Your task to perform on an android device: toggle data saver in the chrome app Image 0: 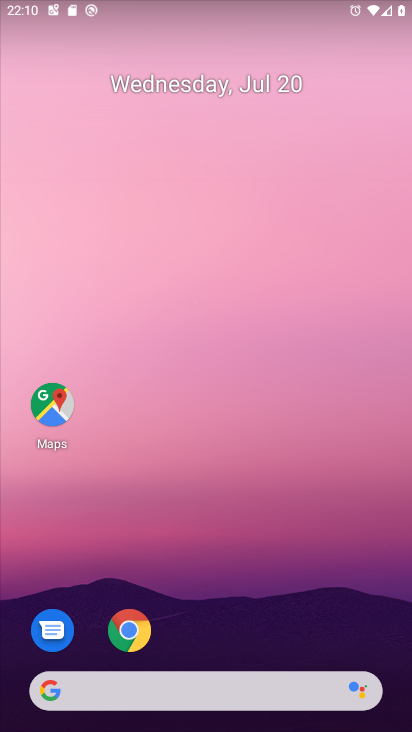
Step 0: click (133, 633)
Your task to perform on an android device: toggle data saver in the chrome app Image 1: 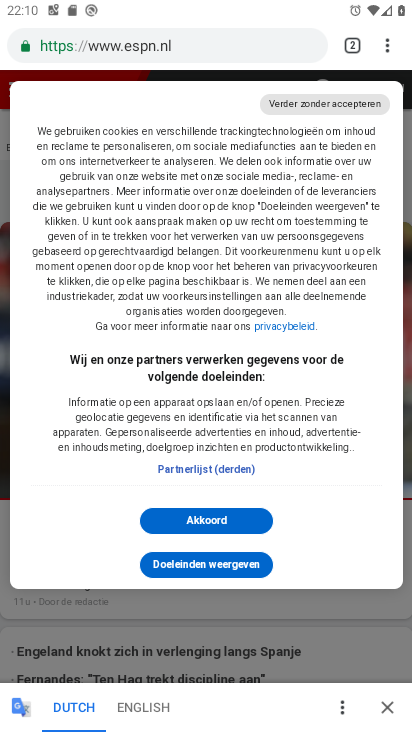
Step 1: drag from (386, 48) to (237, 550)
Your task to perform on an android device: toggle data saver in the chrome app Image 2: 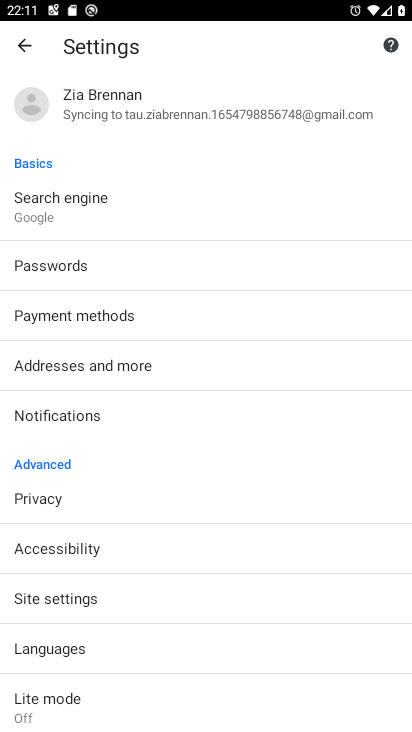
Step 2: click (59, 698)
Your task to perform on an android device: toggle data saver in the chrome app Image 3: 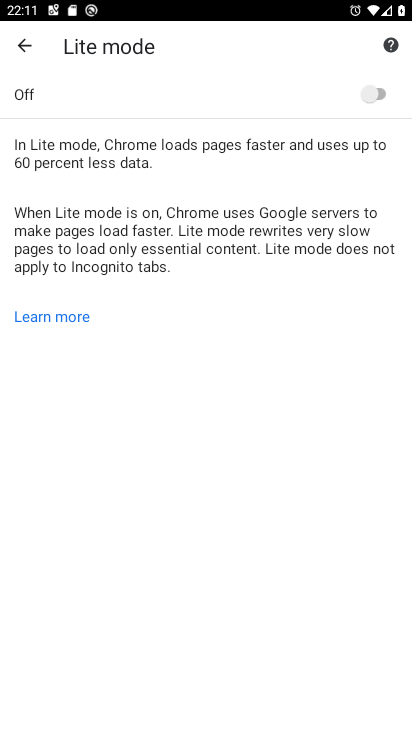
Step 3: click (373, 86)
Your task to perform on an android device: toggle data saver in the chrome app Image 4: 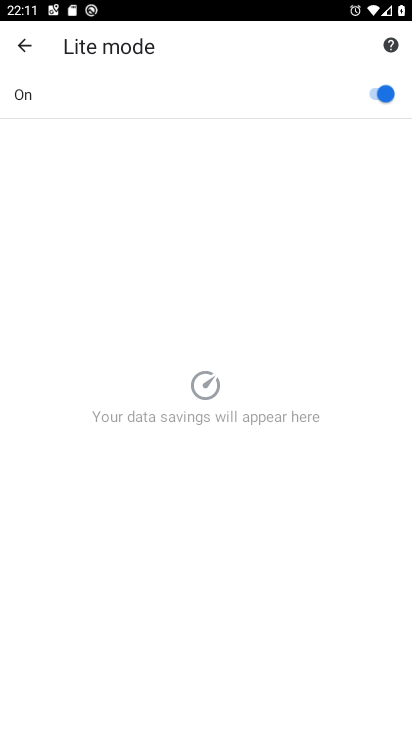
Step 4: task complete